Your task to perform on an android device: turn on sleep mode Image 0: 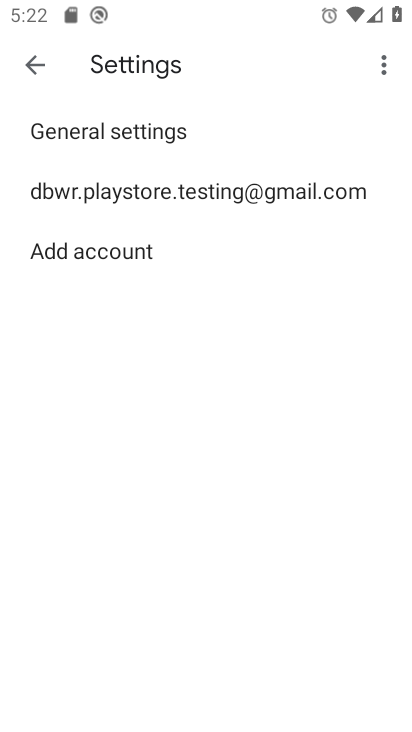
Step 0: press home button
Your task to perform on an android device: turn on sleep mode Image 1: 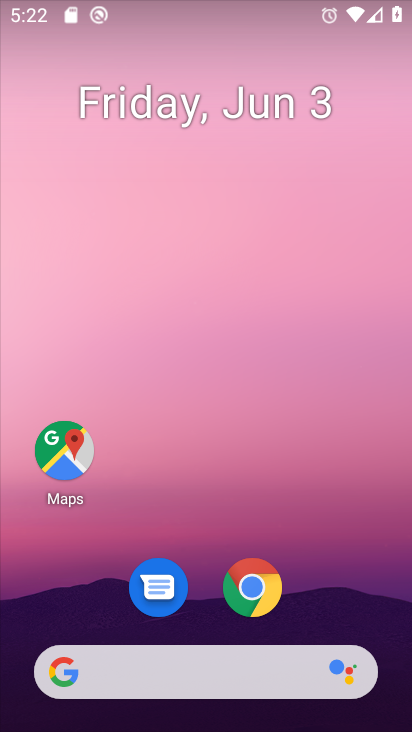
Step 1: drag from (194, 16) to (154, 729)
Your task to perform on an android device: turn on sleep mode Image 2: 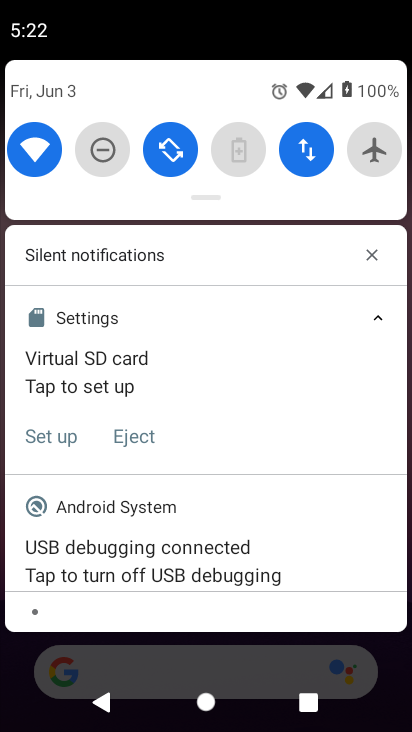
Step 2: drag from (207, 200) to (240, 727)
Your task to perform on an android device: turn on sleep mode Image 3: 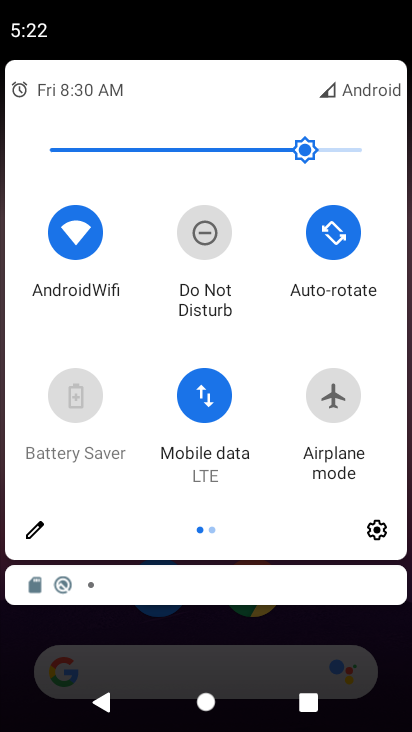
Step 3: click (28, 526)
Your task to perform on an android device: turn on sleep mode Image 4: 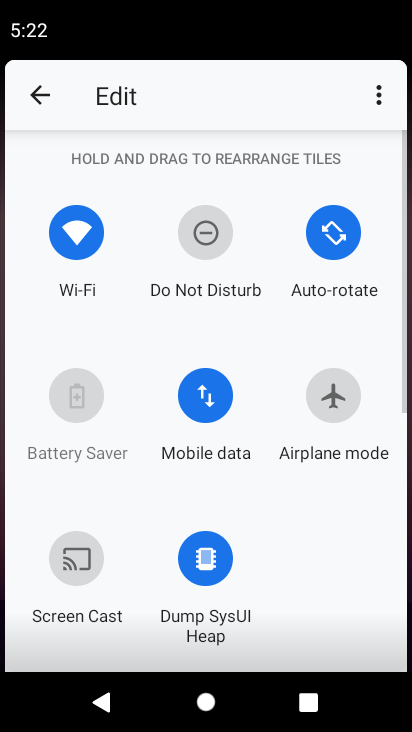
Step 4: task complete